Your task to perform on an android device: See recent photos Image 0: 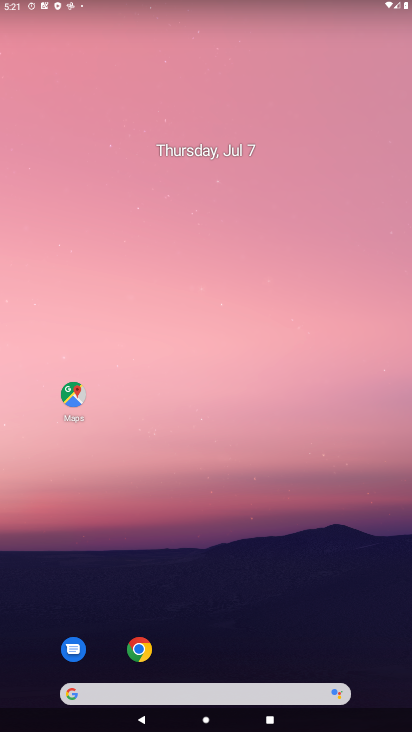
Step 0: click (313, 254)
Your task to perform on an android device: See recent photos Image 1: 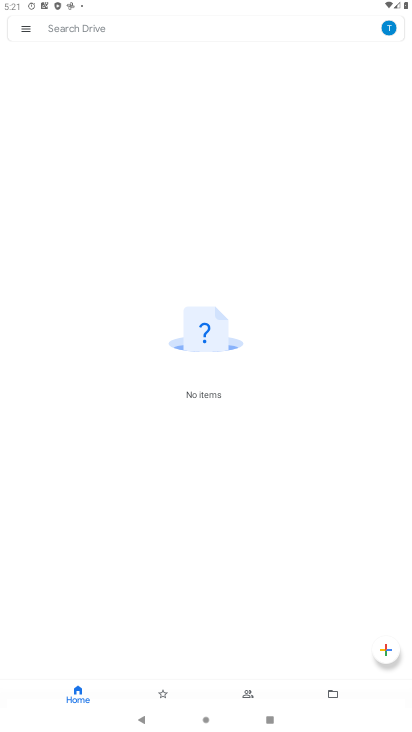
Step 1: press home button
Your task to perform on an android device: See recent photos Image 2: 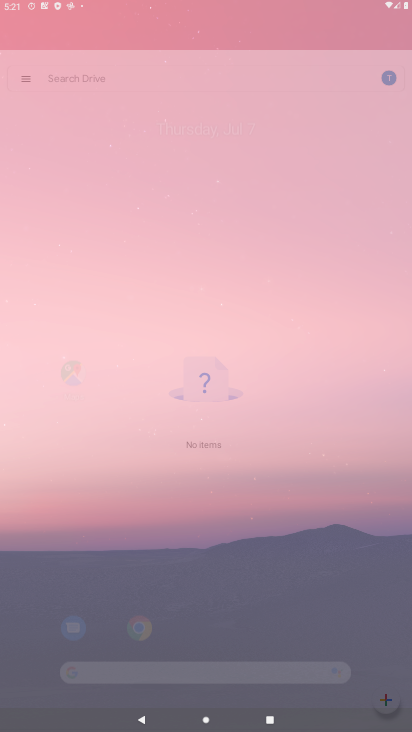
Step 2: drag from (341, 669) to (308, 174)
Your task to perform on an android device: See recent photos Image 3: 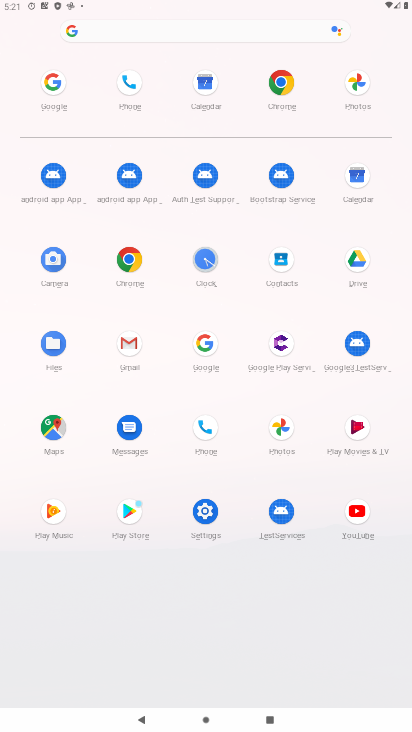
Step 3: click (348, 103)
Your task to perform on an android device: See recent photos Image 4: 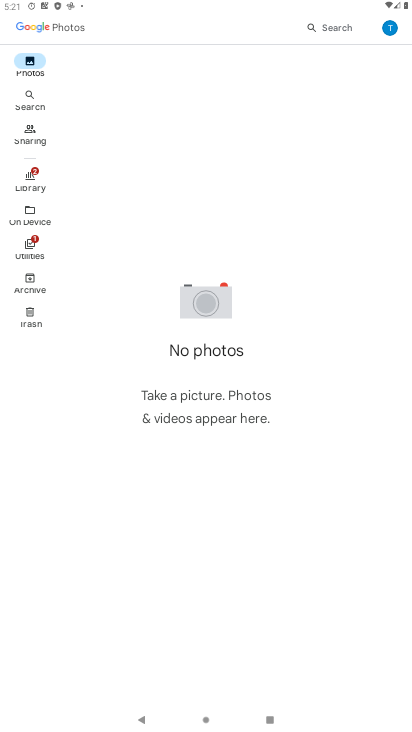
Step 4: task complete